Your task to perform on an android device: find snoozed emails in the gmail app Image 0: 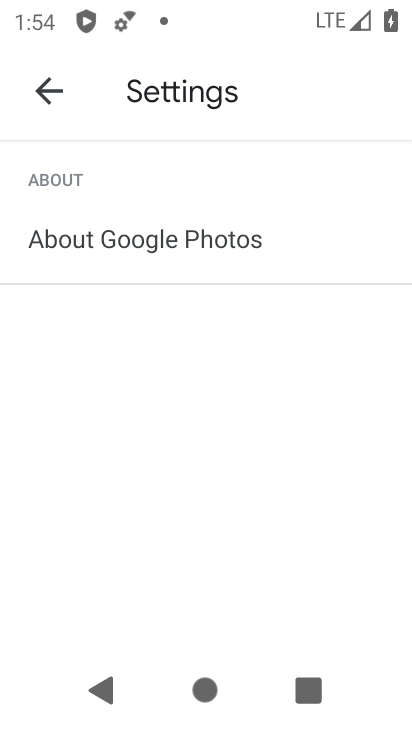
Step 0: press home button
Your task to perform on an android device: find snoozed emails in the gmail app Image 1: 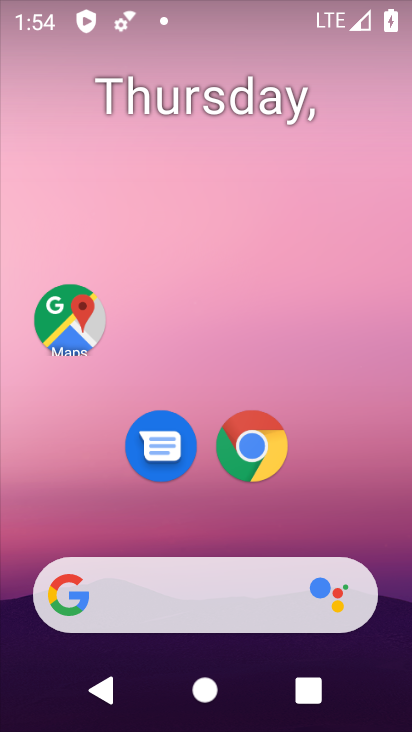
Step 1: drag from (332, 521) to (323, 254)
Your task to perform on an android device: find snoozed emails in the gmail app Image 2: 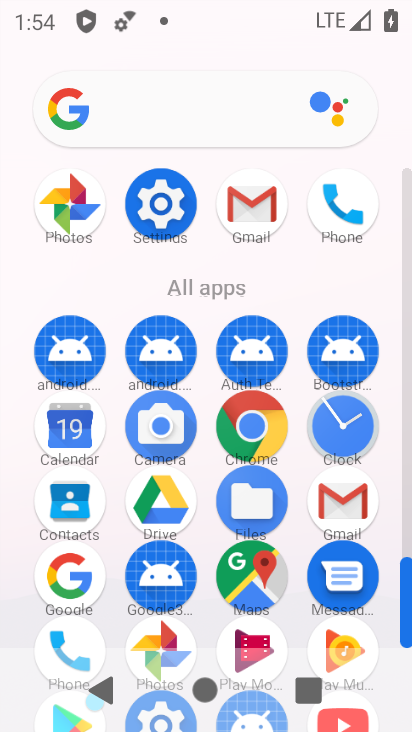
Step 2: click (232, 209)
Your task to perform on an android device: find snoozed emails in the gmail app Image 3: 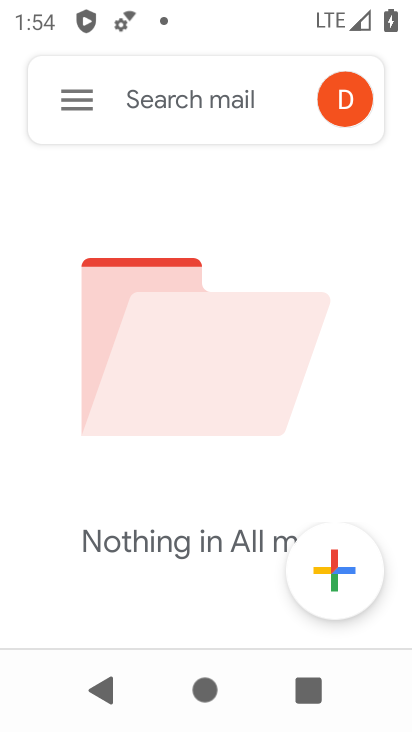
Step 3: click (61, 101)
Your task to perform on an android device: find snoozed emails in the gmail app Image 4: 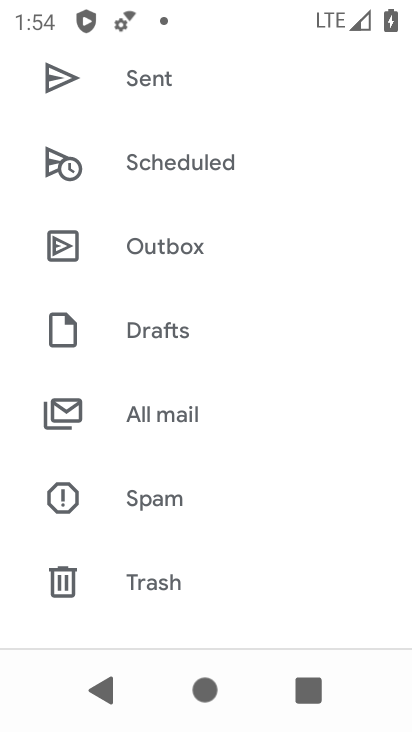
Step 4: drag from (121, 137) to (173, 540)
Your task to perform on an android device: find snoozed emails in the gmail app Image 5: 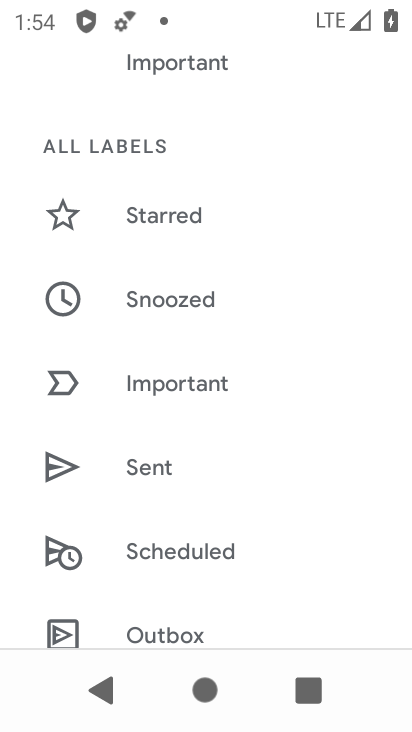
Step 5: click (147, 292)
Your task to perform on an android device: find snoozed emails in the gmail app Image 6: 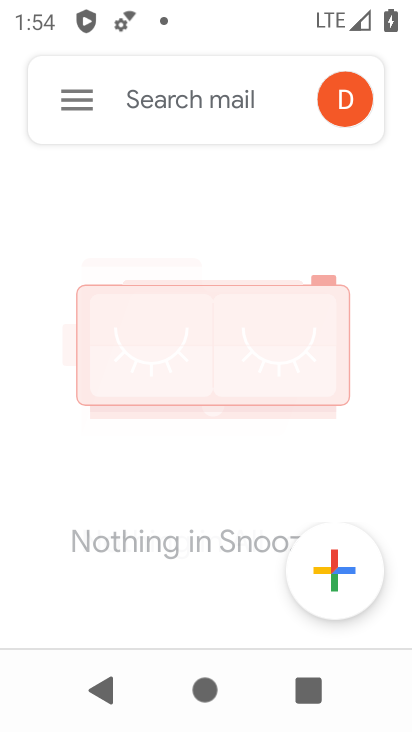
Step 6: task complete